Your task to perform on an android device: Go to privacy settings Image 0: 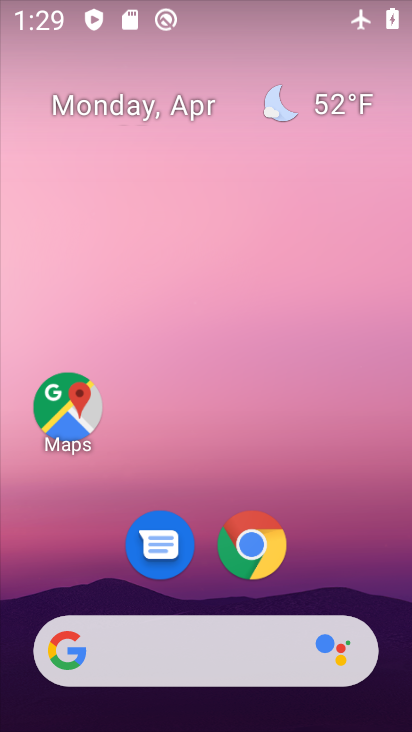
Step 0: drag from (207, 711) to (180, 192)
Your task to perform on an android device: Go to privacy settings Image 1: 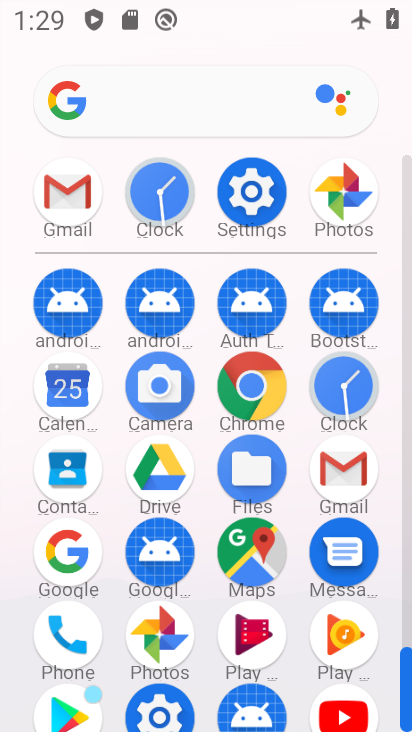
Step 1: click (249, 187)
Your task to perform on an android device: Go to privacy settings Image 2: 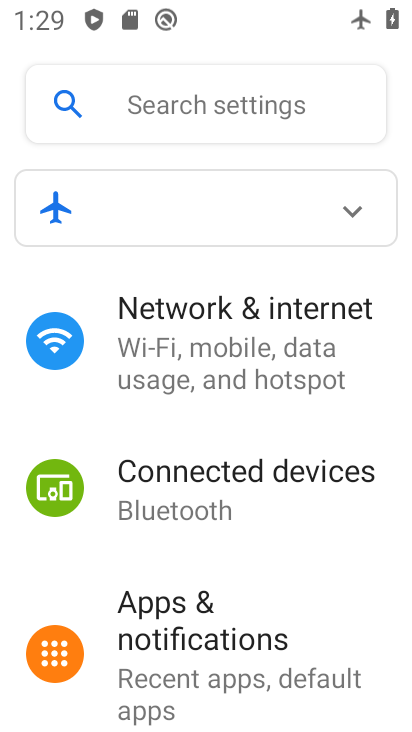
Step 2: drag from (213, 698) to (221, 304)
Your task to perform on an android device: Go to privacy settings Image 3: 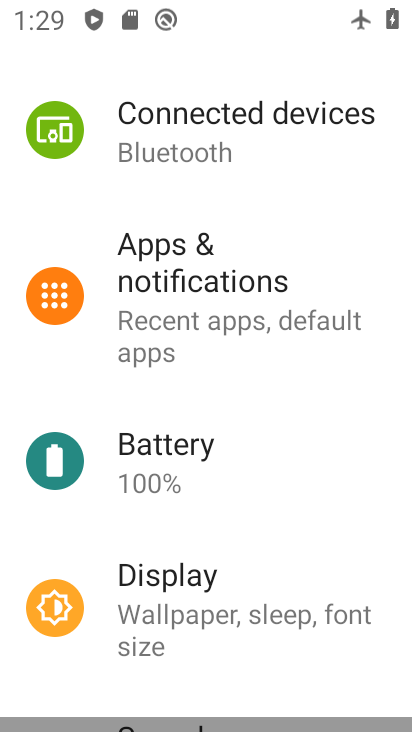
Step 3: drag from (208, 621) to (231, 272)
Your task to perform on an android device: Go to privacy settings Image 4: 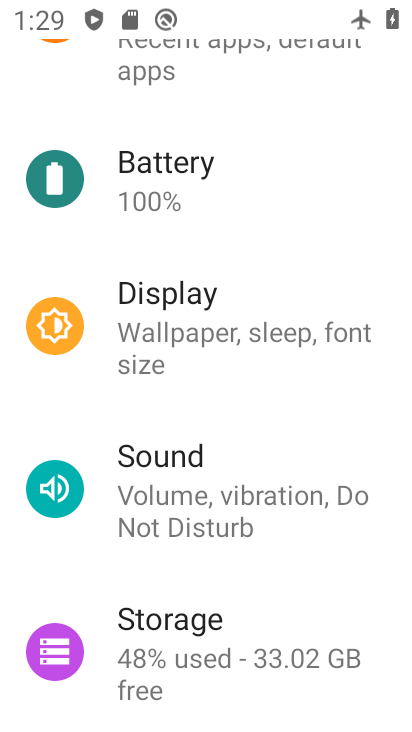
Step 4: drag from (198, 679) to (204, 277)
Your task to perform on an android device: Go to privacy settings Image 5: 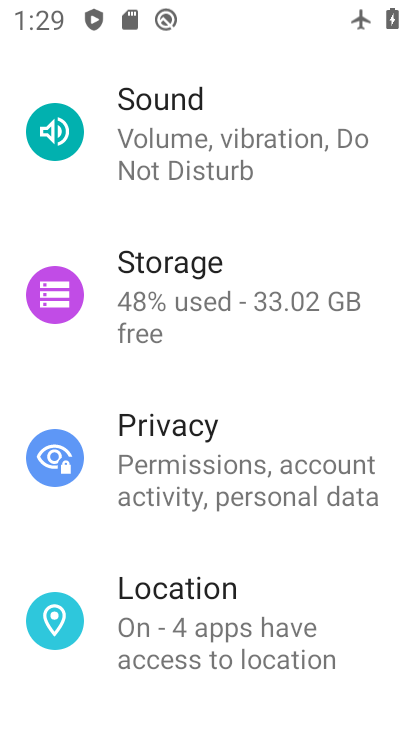
Step 5: click (182, 443)
Your task to perform on an android device: Go to privacy settings Image 6: 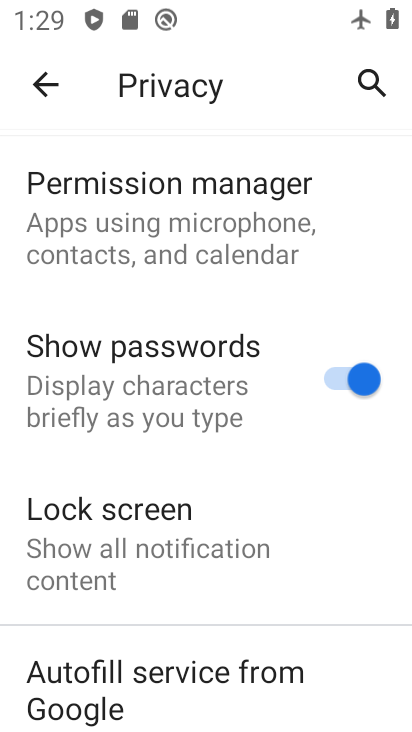
Step 6: task complete